Your task to perform on an android device: Go to battery settings Image 0: 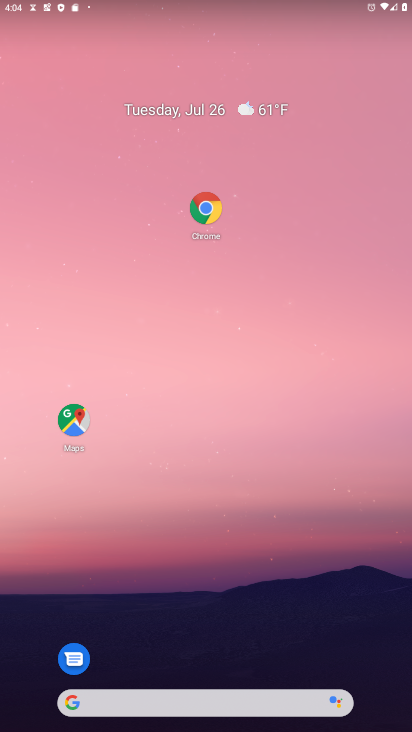
Step 0: drag from (181, 94) to (181, 48)
Your task to perform on an android device: Go to battery settings Image 1: 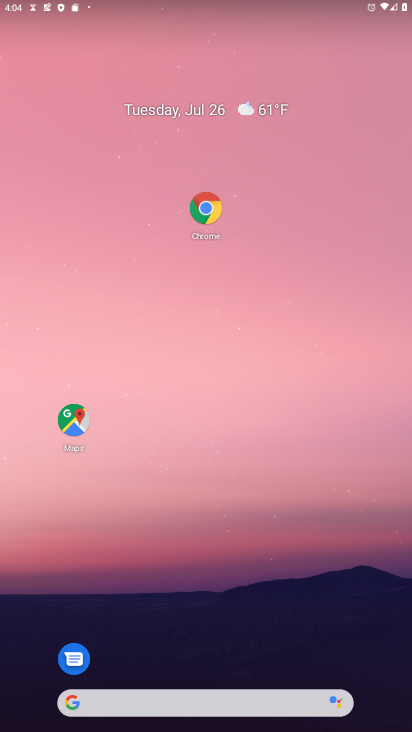
Step 1: drag from (160, 622) to (219, 21)
Your task to perform on an android device: Go to battery settings Image 2: 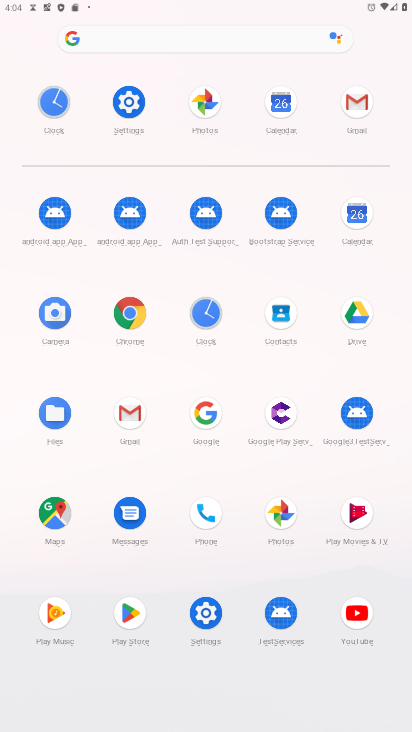
Step 2: click (135, 103)
Your task to perform on an android device: Go to battery settings Image 3: 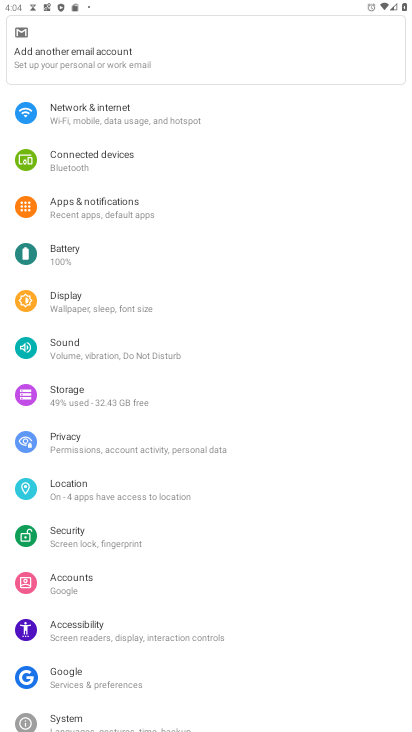
Step 3: click (70, 264)
Your task to perform on an android device: Go to battery settings Image 4: 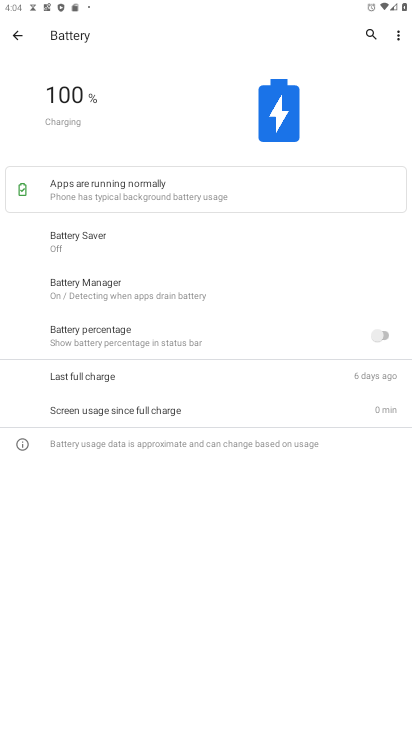
Step 4: task complete